Your task to perform on an android device: toggle improve location accuracy Image 0: 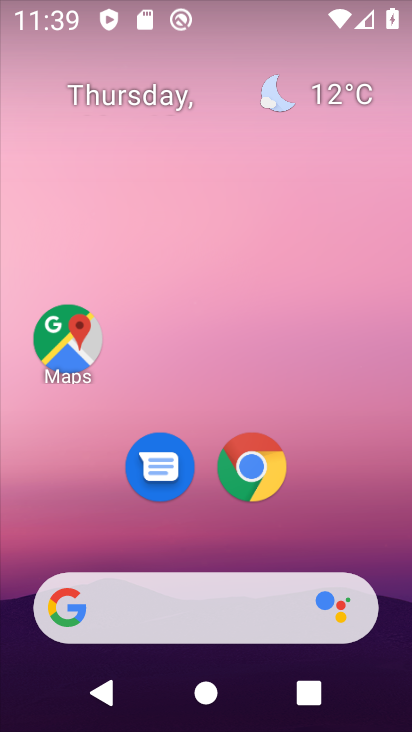
Step 0: drag from (341, 475) to (2, 105)
Your task to perform on an android device: toggle improve location accuracy Image 1: 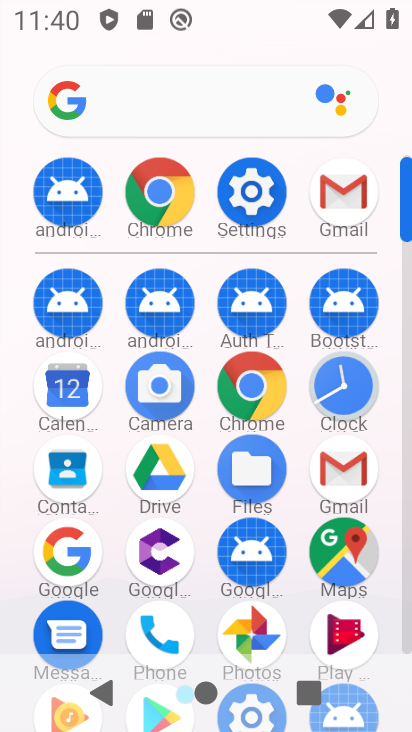
Step 1: click (251, 190)
Your task to perform on an android device: toggle improve location accuracy Image 2: 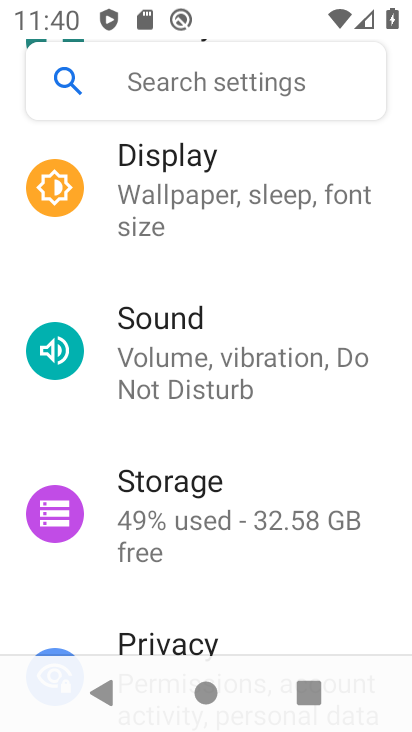
Step 2: drag from (144, 570) to (229, 185)
Your task to perform on an android device: toggle improve location accuracy Image 3: 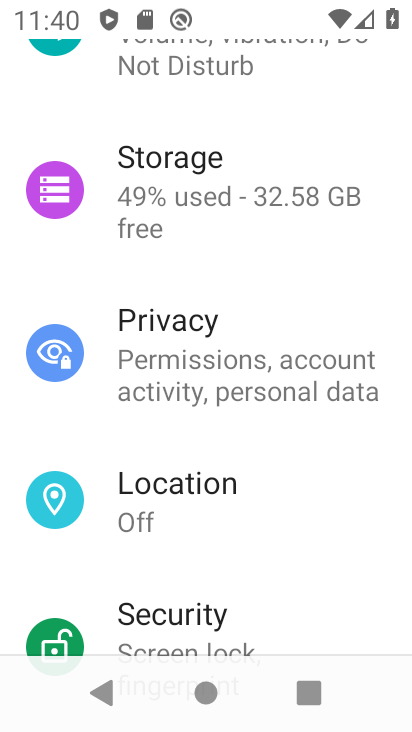
Step 3: click (186, 513)
Your task to perform on an android device: toggle improve location accuracy Image 4: 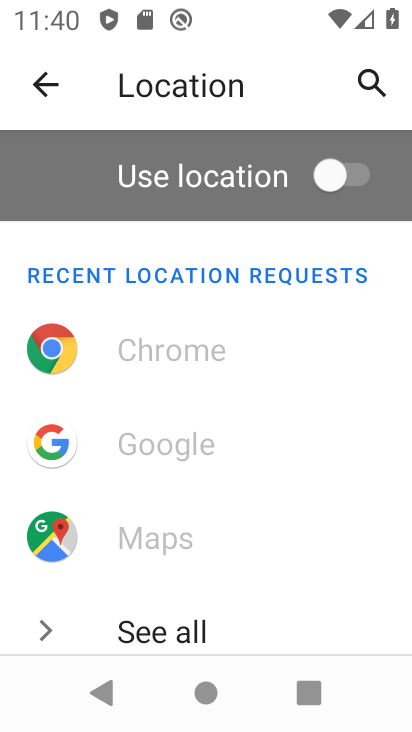
Step 4: drag from (233, 545) to (292, 2)
Your task to perform on an android device: toggle improve location accuracy Image 5: 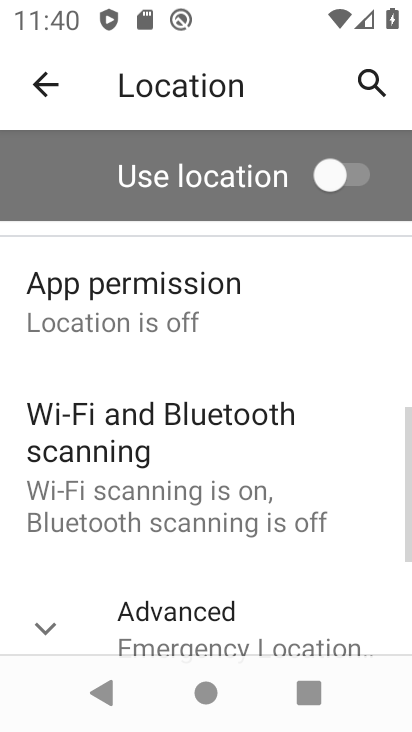
Step 5: drag from (169, 435) to (225, 166)
Your task to perform on an android device: toggle improve location accuracy Image 6: 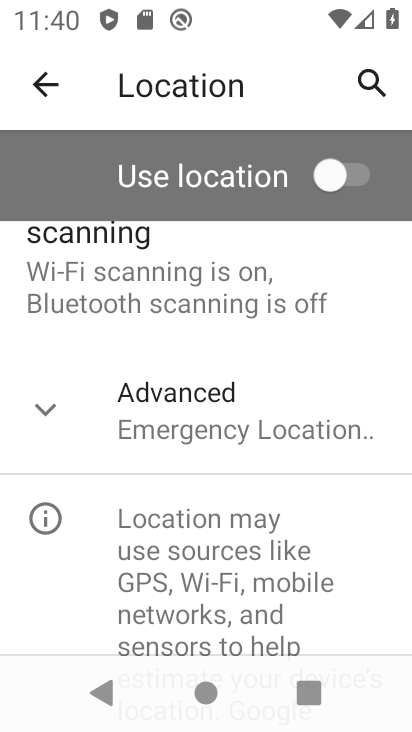
Step 6: drag from (212, 553) to (206, 209)
Your task to perform on an android device: toggle improve location accuracy Image 7: 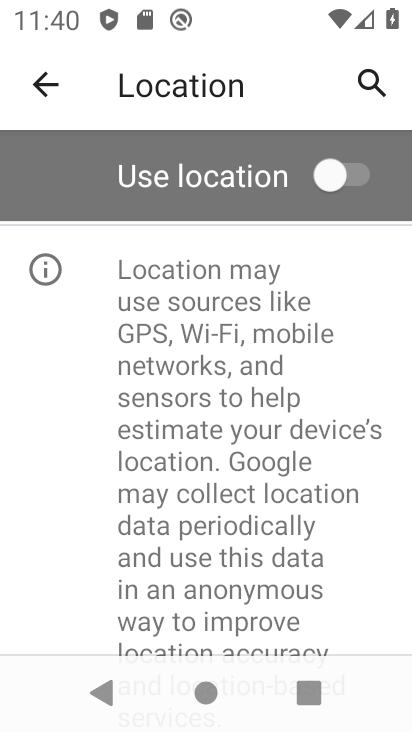
Step 7: drag from (199, 261) to (199, 541)
Your task to perform on an android device: toggle improve location accuracy Image 8: 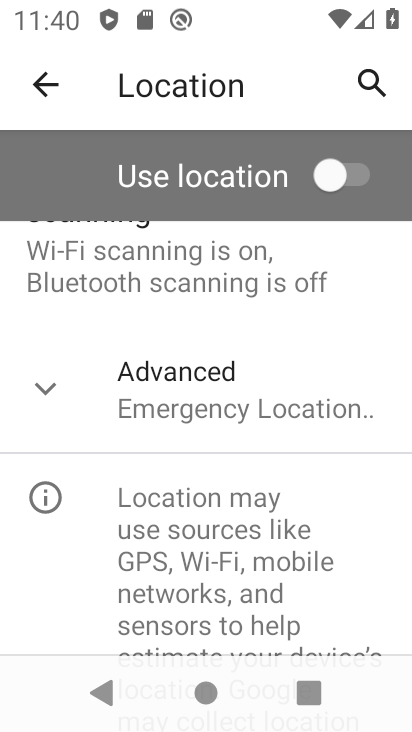
Step 8: click (211, 420)
Your task to perform on an android device: toggle improve location accuracy Image 9: 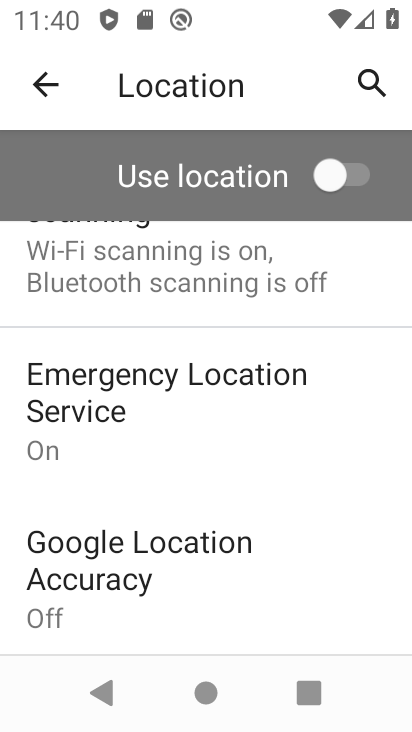
Step 9: drag from (227, 543) to (285, 189)
Your task to perform on an android device: toggle improve location accuracy Image 10: 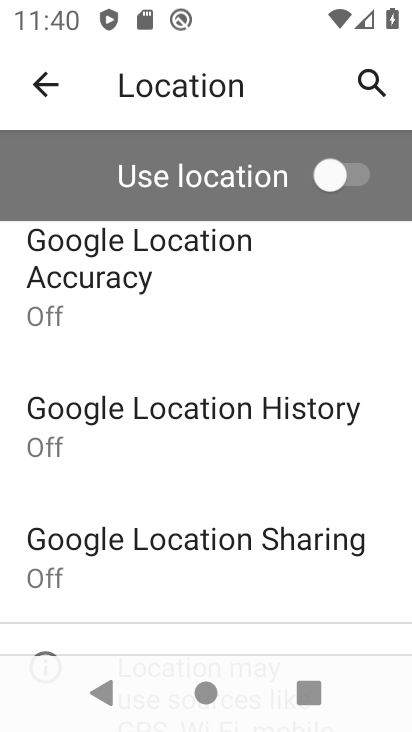
Step 10: drag from (228, 442) to (266, 297)
Your task to perform on an android device: toggle improve location accuracy Image 11: 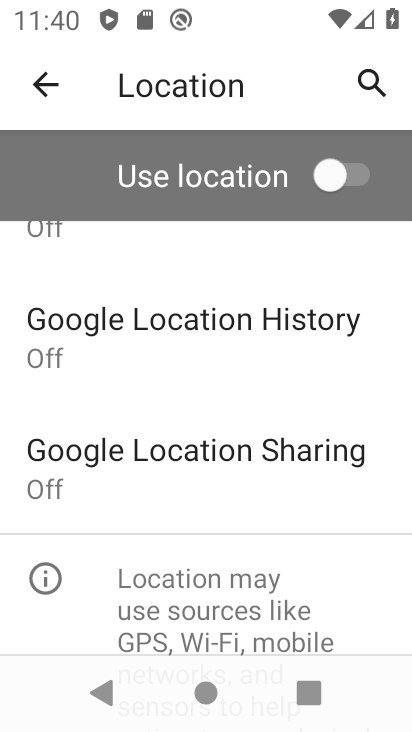
Step 11: drag from (244, 354) to (223, 574)
Your task to perform on an android device: toggle improve location accuracy Image 12: 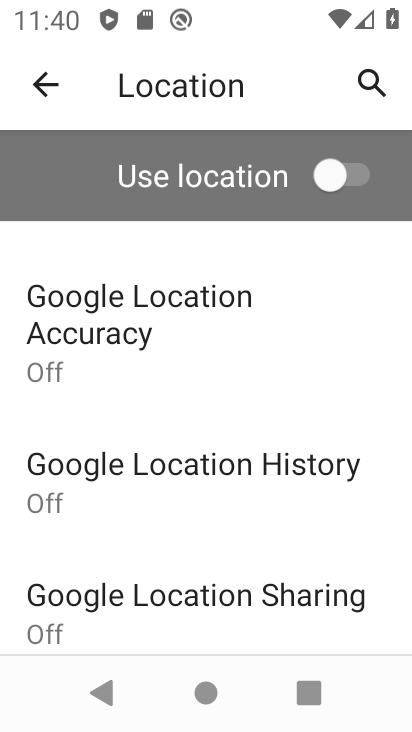
Step 12: click (142, 336)
Your task to perform on an android device: toggle improve location accuracy Image 13: 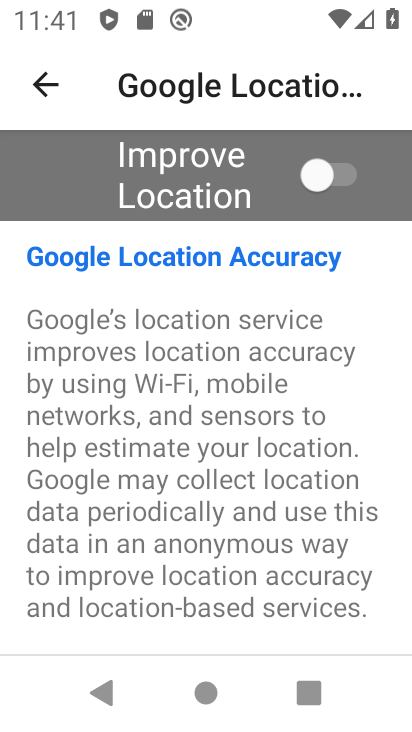
Step 13: task complete